Your task to perform on an android device: Open battery settings Image 0: 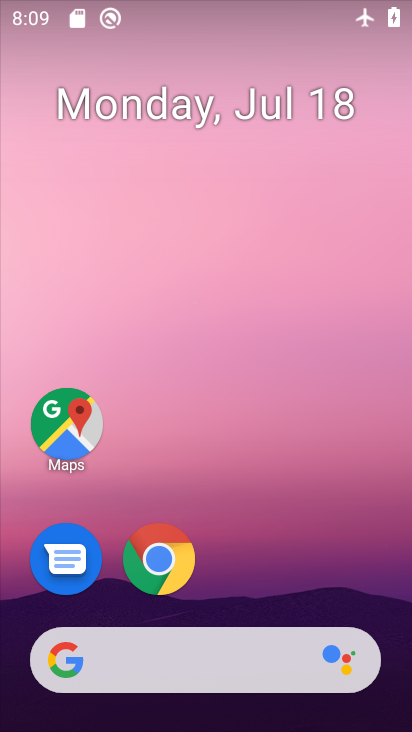
Step 0: drag from (343, 592) to (351, 256)
Your task to perform on an android device: Open battery settings Image 1: 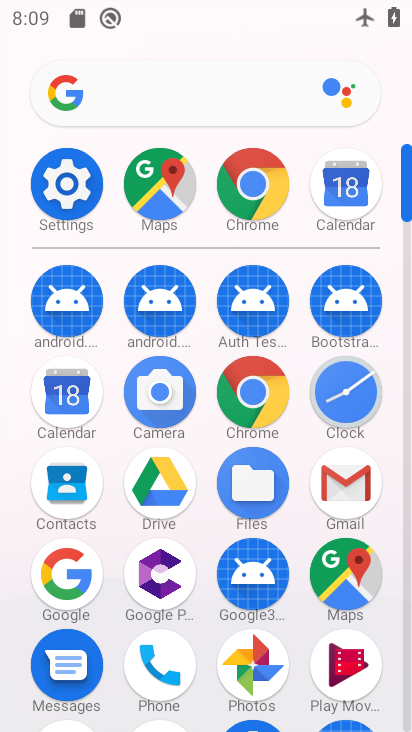
Step 1: click (70, 202)
Your task to perform on an android device: Open battery settings Image 2: 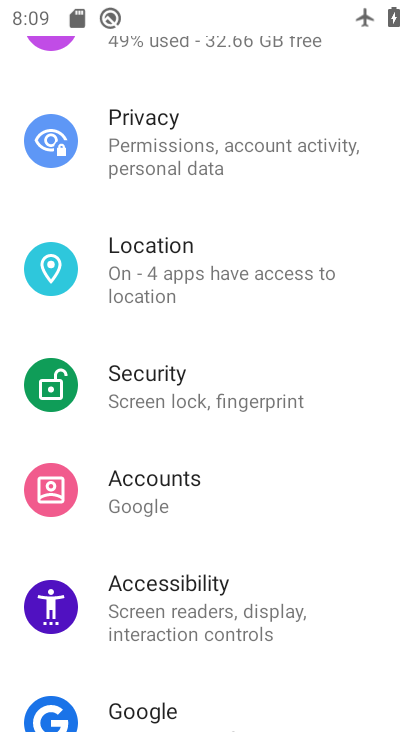
Step 2: drag from (342, 329) to (346, 413)
Your task to perform on an android device: Open battery settings Image 3: 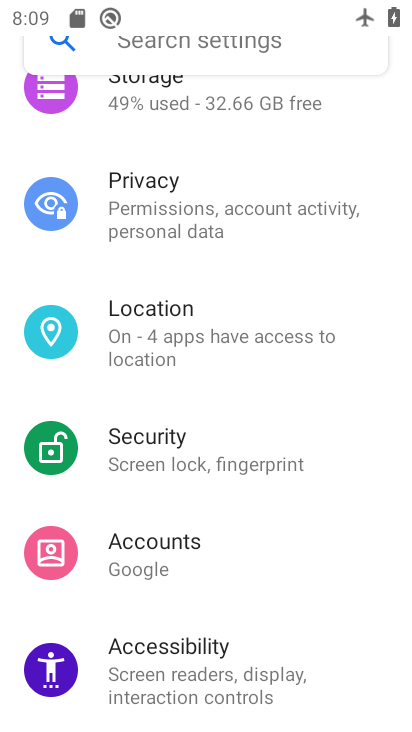
Step 3: drag from (353, 297) to (360, 393)
Your task to perform on an android device: Open battery settings Image 4: 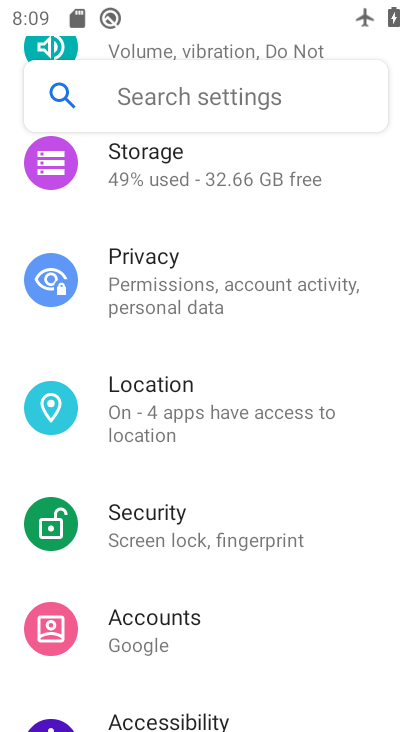
Step 4: drag from (377, 240) to (377, 332)
Your task to perform on an android device: Open battery settings Image 5: 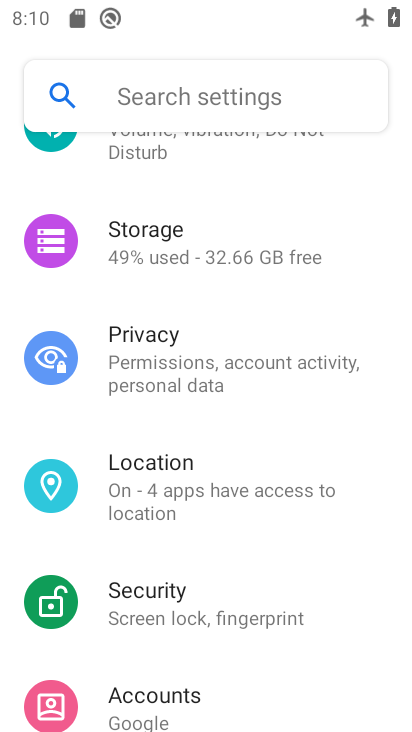
Step 5: drag from (370, 260) to (370, 354)
Your task to perform on an android device: Open battery settings Image 6: 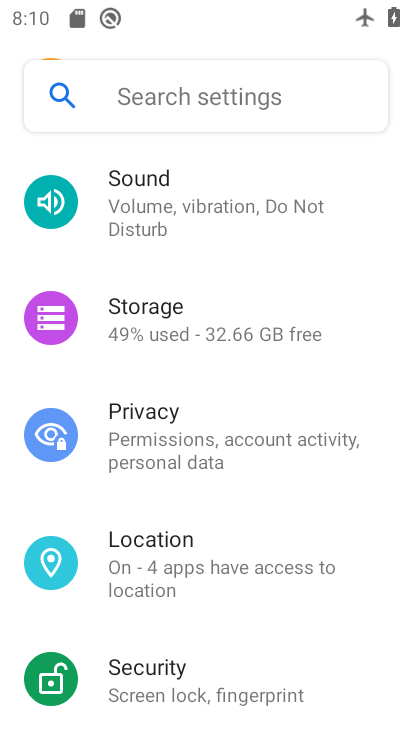
Step 6: drag from (373, 293) to (366, 369)
Your task to perform on an android device: Open battery settings Image 7: 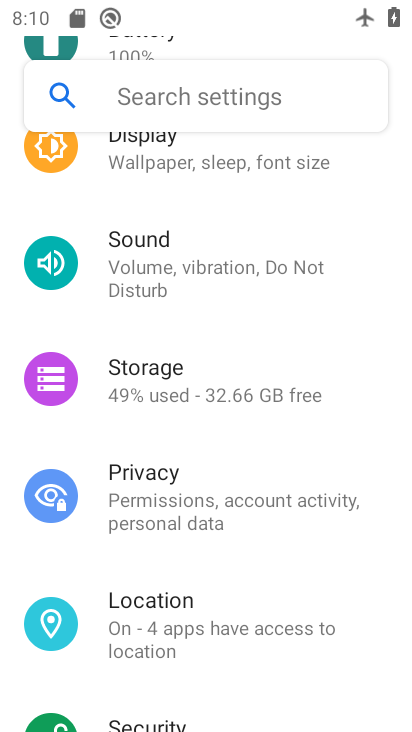
Step 7: drag from (356, 252) to (353, 350)
Your task to perform on an android device: Open battery settings Image 8: 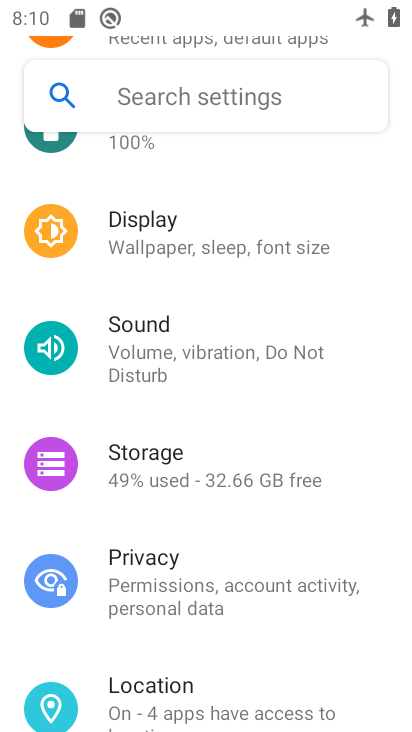
Step 8: drag from (368, 280) to (364, 355)
Your task to perform on an android device: Open battery settings Image 9: 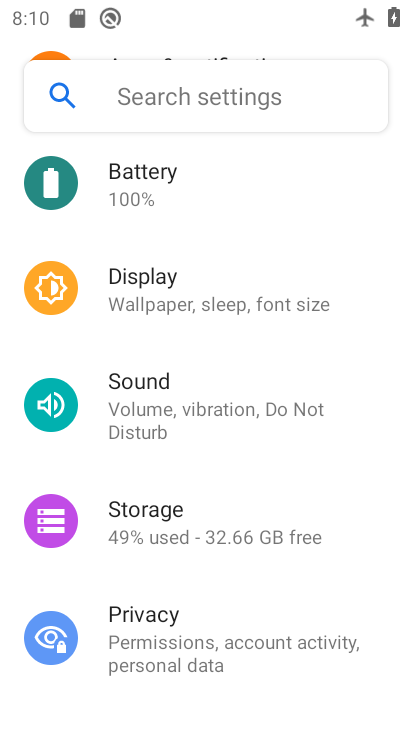
Step 9: drag from (359, 272) to (362, 351)
Your task to perform on an android device: Open battery settings Image 10: 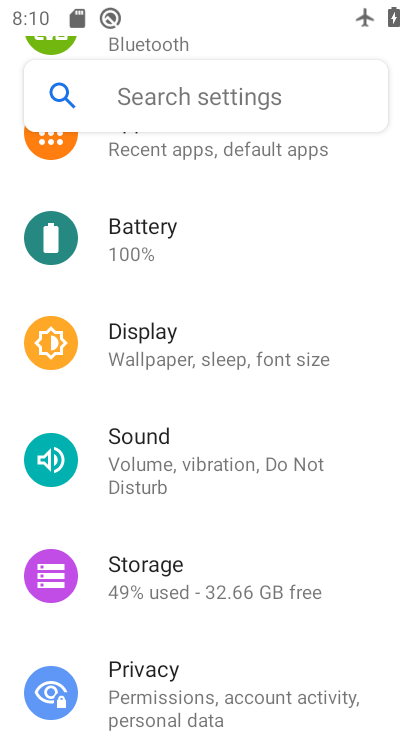
Step 10: drag from (363, 264) to (370, 345)
Your task to perform on an android device: Open battery settings Image 11: 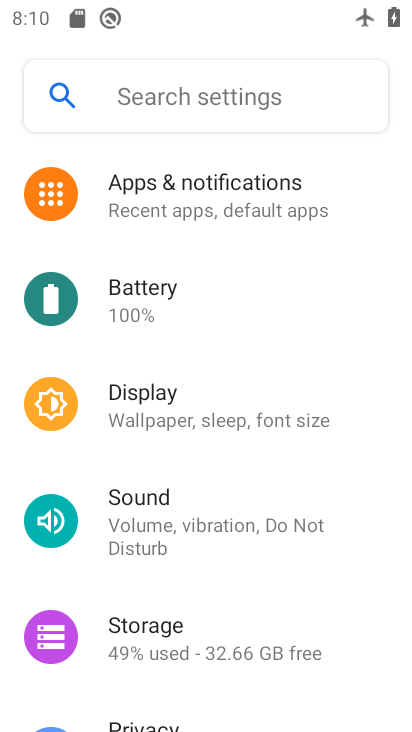
Step 11: drag from (367, 308) to (370, 390)
Your task to perform on an android device: Open battery settings Image 12: 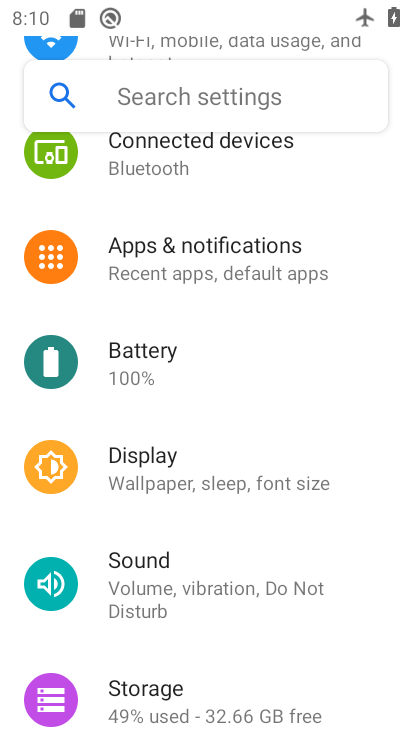
Step 12: click (310, 369)
Your task to perform on an android device: Open battery settings Image 13: 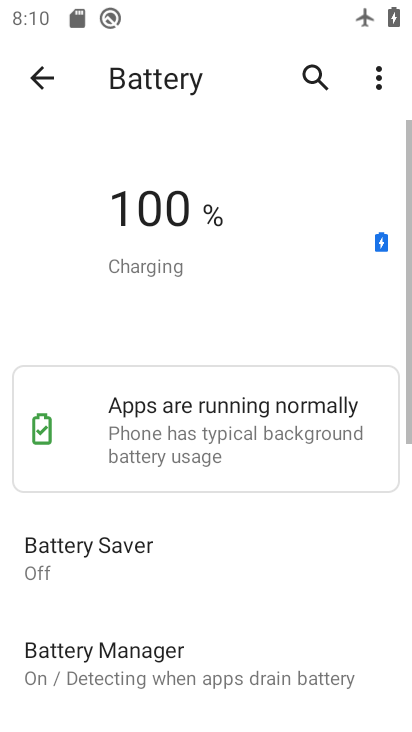
Step 13: task complete